Your task to perform on an android device: set the stopwatch Image 0: 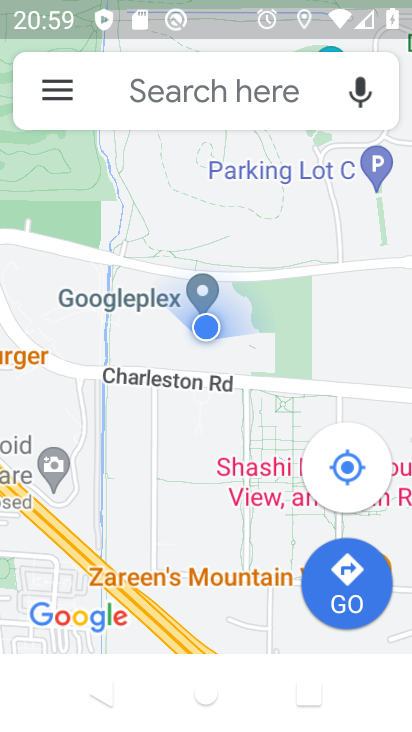
Step 0: press home button
Your task to perform on an android device: set the stopwatch Image 1: 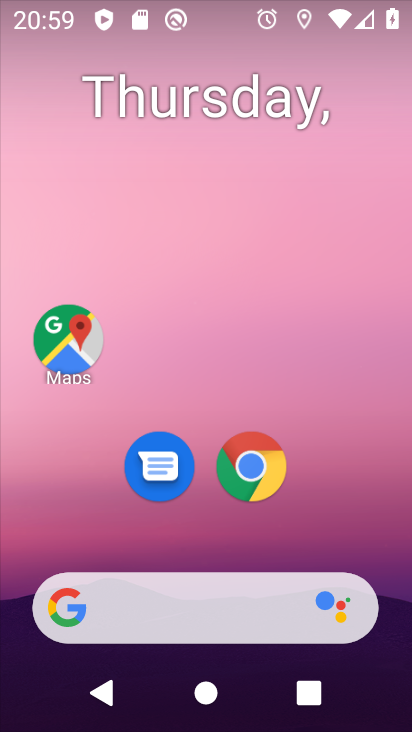
Step 1: drag from (193, 569) to (327, 2)
Your task to perform on an android device: set the stopwatch Image 2: 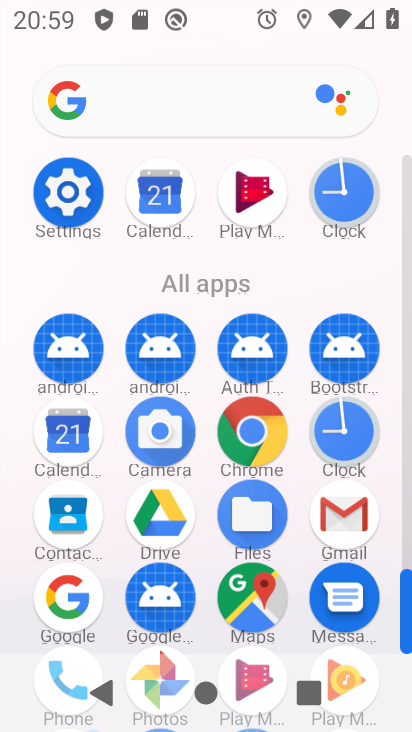
Step 2: click (334, 408)
Your task to perform on an android device: set the stopwatch Image 3: 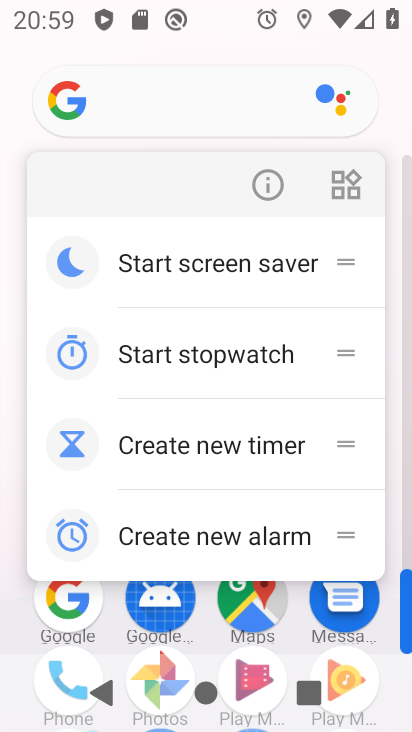
Step 3: click (410, 404)
Your task to perform on an android device: set the stopwatch Image 4: 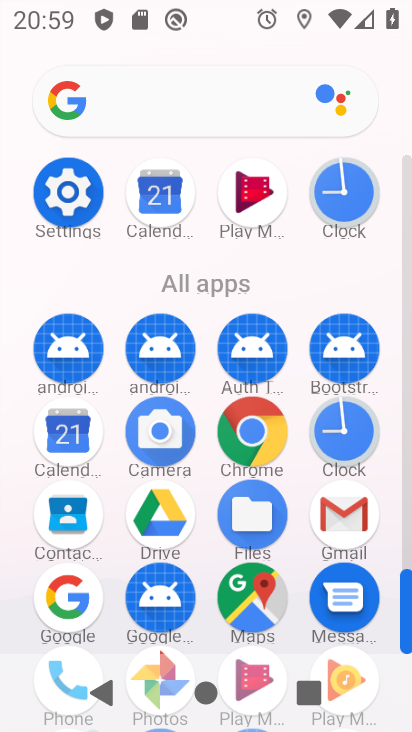
Step 4: click (362, 441)
Your task to perform on an android device: set the stopwatch Image 5: 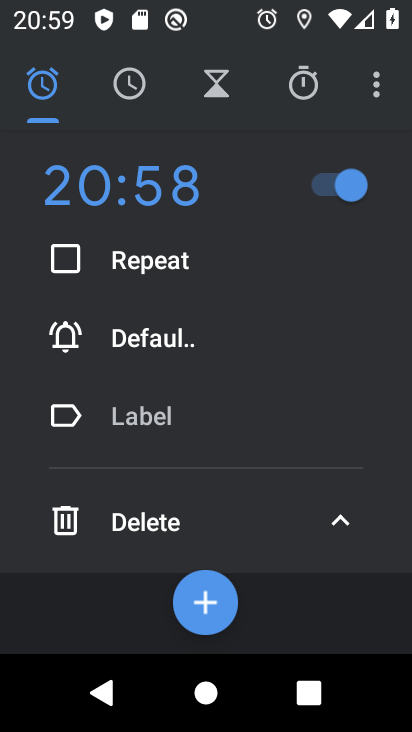
Step 5: click (303, 77)
Your task to perform on an android device: set the stopwatch Image 6: 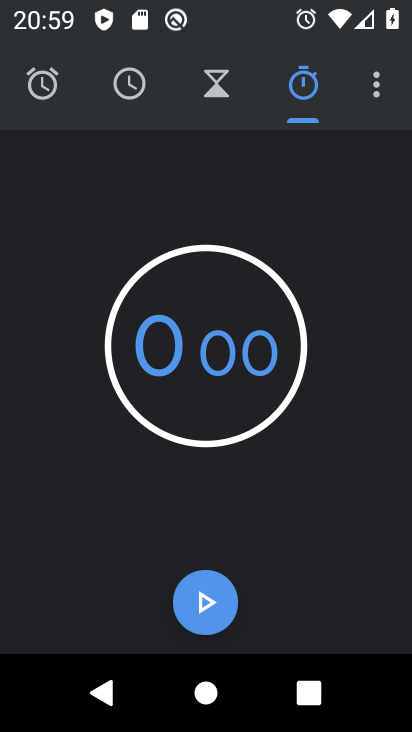
Step 6: click (224, 585)
Your task to perform on an android device: set the stopwatch Image 7: 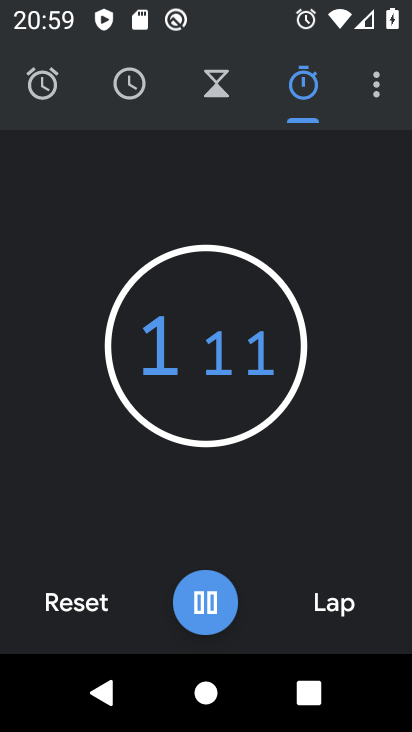
Step 7: click (217, 588)
Your task to perform on an android device: set the stopwatch Image 8: 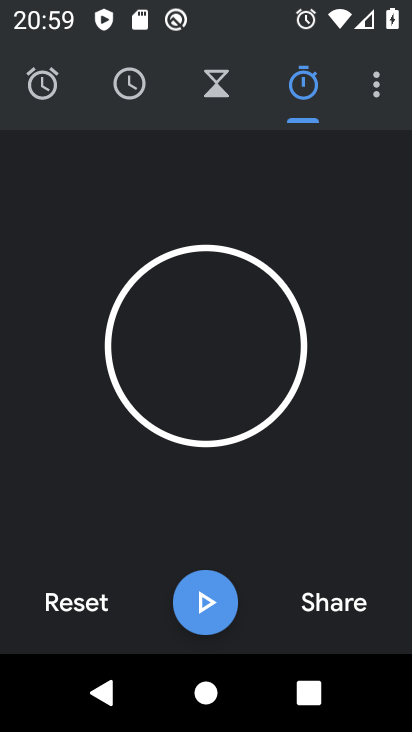
Step 8: task complete